Your task to perform on an android device: remove spam from my inbox in the gmail app Image 0: 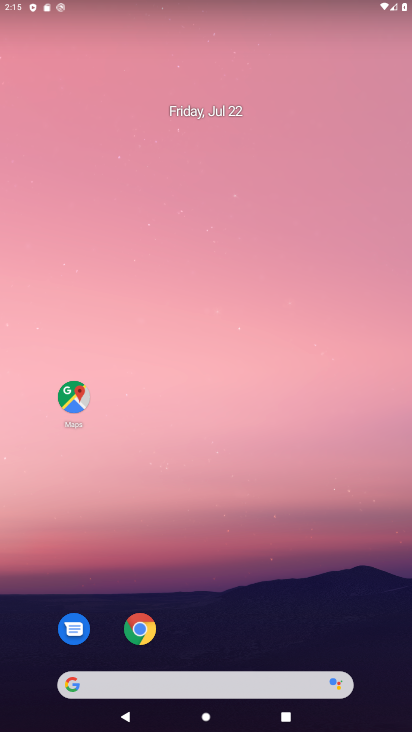
Step 0: drag from (186, 675) to (125, 463)
Your task to perform on an android device: remove spam from my inbox in the gmail app Image 1: 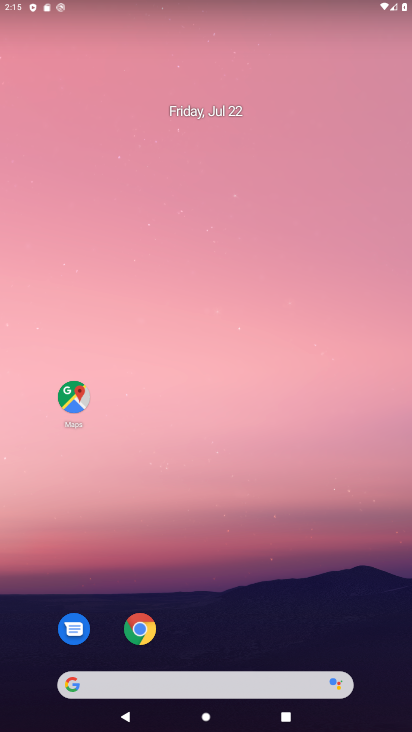
Step 1: drag from (206, 692) to (220, 307)
Your task to perform on an android device: remove spam from my inbox in the gmail app Image 2: 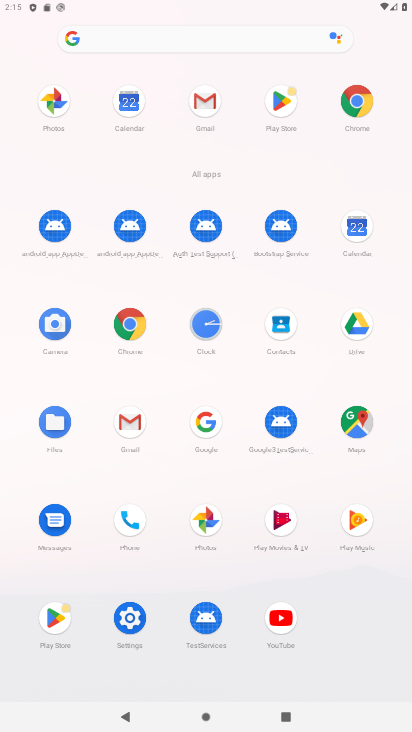
Step 2: click (134, 425)
Your task to perform on an android device: remove spam from my inbox in the gmail app Image 3: 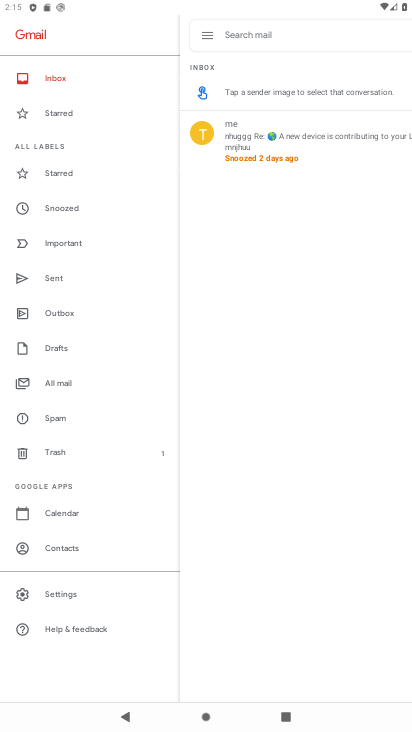
Step 3: click (44, 427)
Your task to perform on an android device: remove spam from my inbox in the gmail app Image 4: 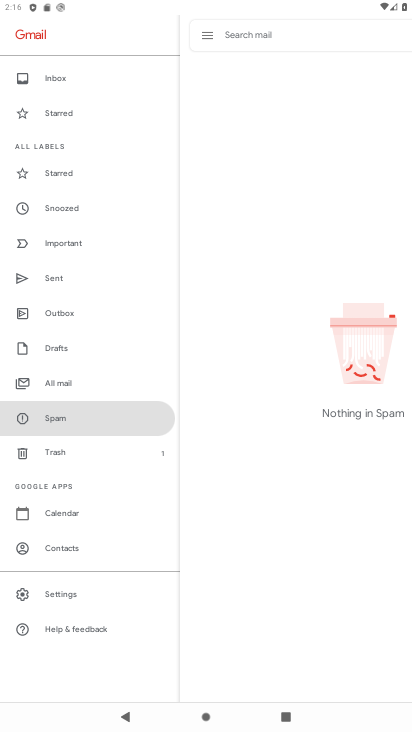
Step 4: task complete